Your task to perform on an android device: turn off picture-in-picture Image 0: 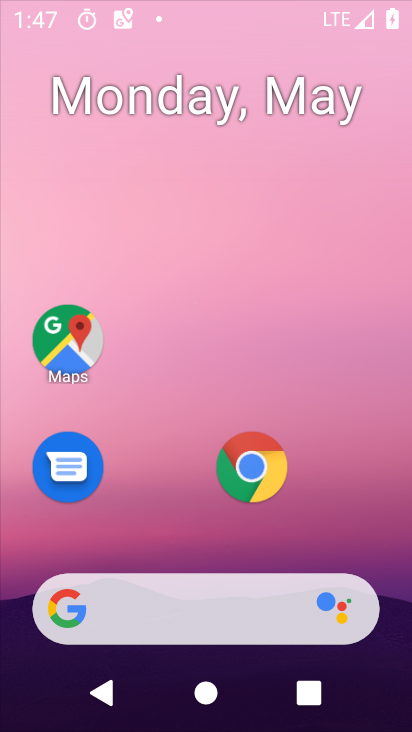
Step 0: click (252, 206)
Your task to perform on an android device: turn off picture-in-picture Image 1: 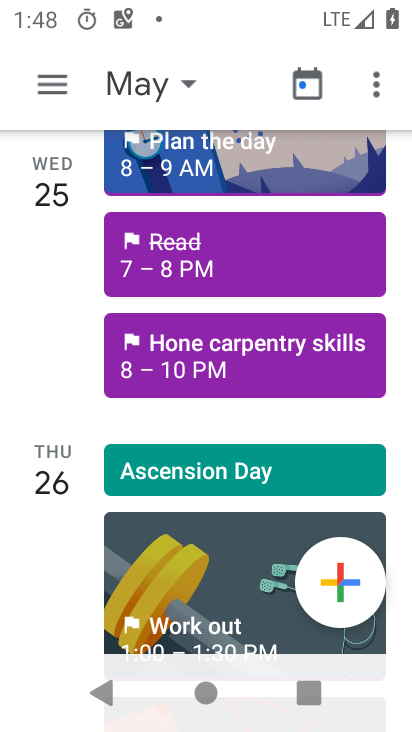
Step 1: drag from (274, 571) to (273, 231)
Your task to perform on an android device: turn off picture-in-picture Image 2: 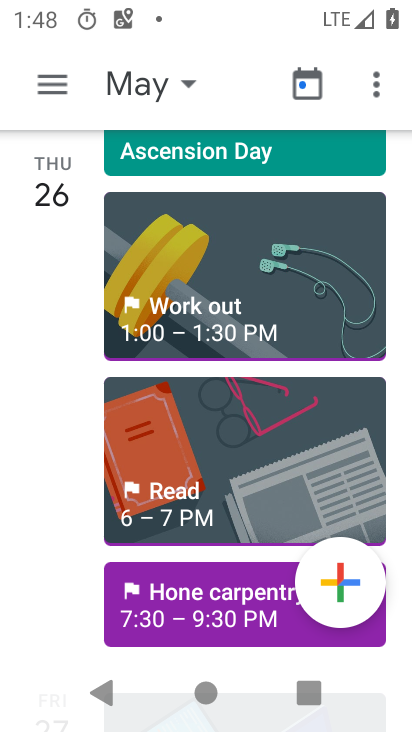
Step 2: drag from (227, 606) to (233, 277)
Your task to perform on an android device: turn off picture-in-picture Image 3: 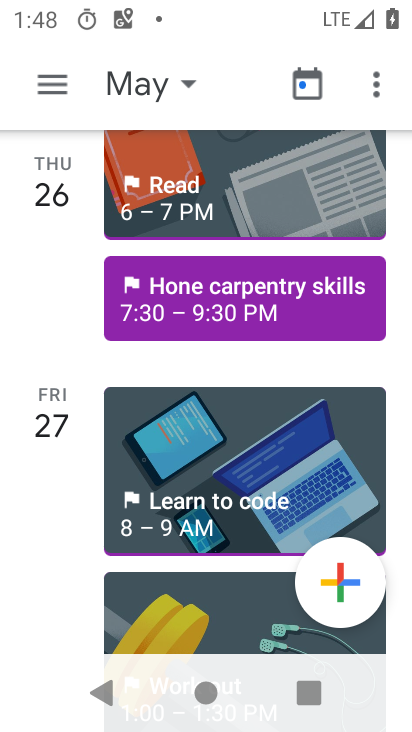
Step 3: drag from (213, 590) to (233, 193)
Your task to perform on an android device: turn off picture-in-picture Image 4: 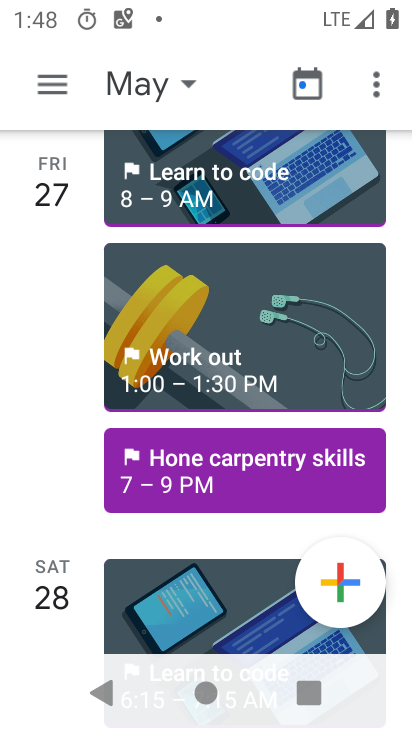
Step 4: drag from (222, 538) to (219, 239)
Your task to perform on an android device: turn off picture-in-picture Image 5: 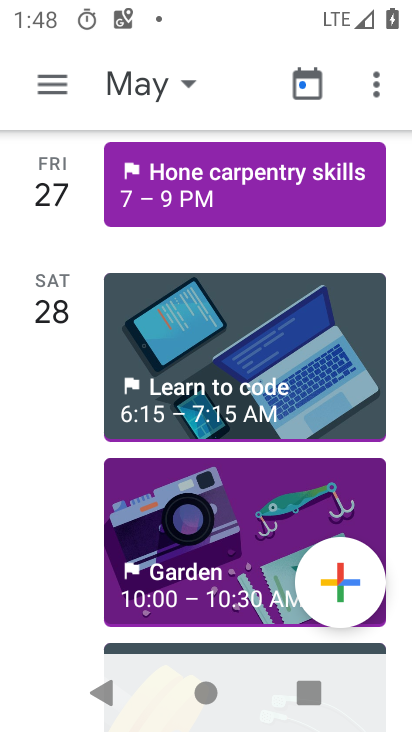
Step 5: drag from (246, 578) to (237, 332)
Your task to perform on an android device: turn off picture-in-picture Image 6: 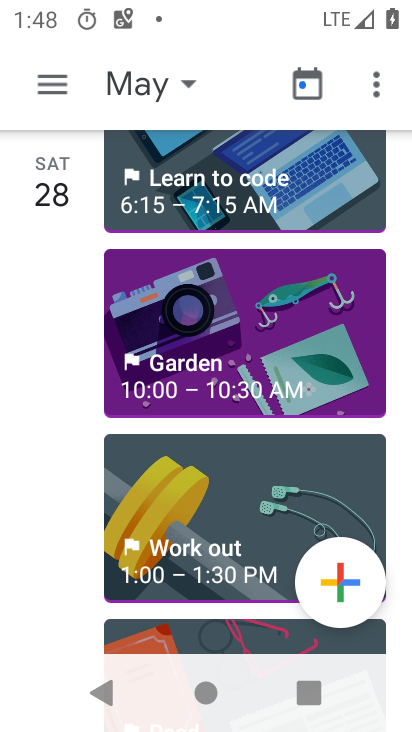
Step 6: drag from (258, 483) to (268, 307)
Your task to perform on an android device: turn off picture-in-picture Image 7: 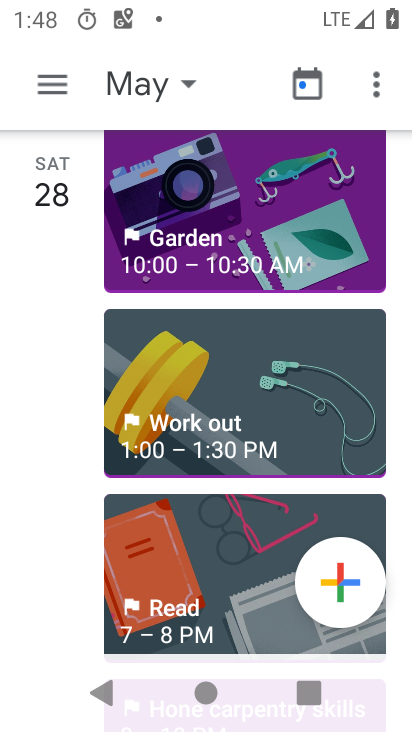
Step 7: drag from (273, 566) to (274, 273)
Your task to perform on an android device: turn off picture-in-picture Image 8: 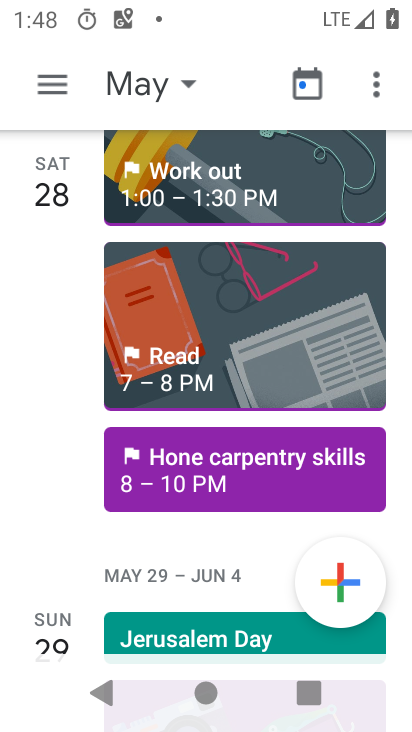
Step 8: click (43, 83)
Your task to perform on an android device: turn off picture-in-picture Image 9: 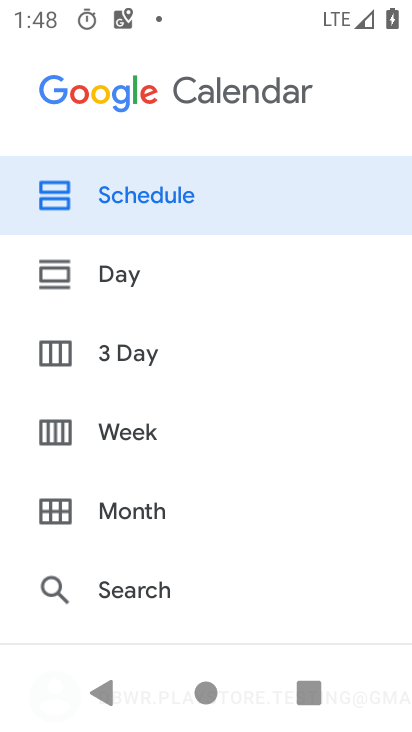
Step 9: drag from (204, 485) to (293, 6)
Your task to perform on an android device: turn off picture-in-picture Image 10: 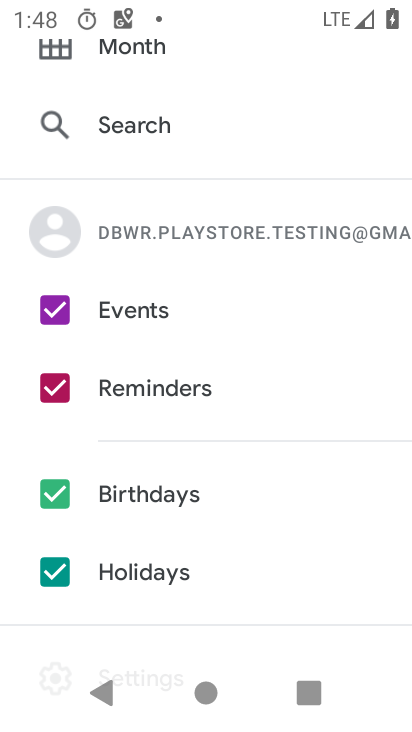
Step 10: drag from (199, 529) to (293, 124)
Your task to perform on an android device: turn off picture-in-picture Image 11: 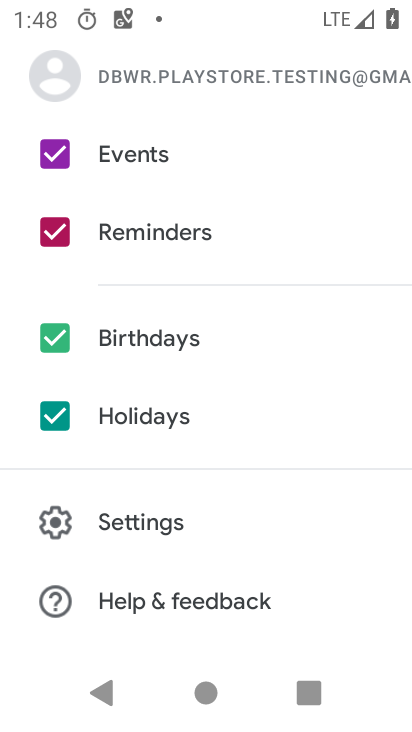
Step 11: press home button
Your task to perform on an android device: turn off picture-in-picture Image 12: 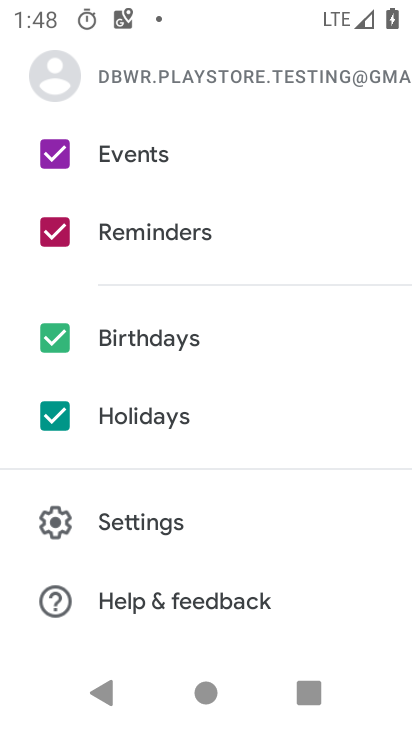
Step 12: drag from (239, 607) to (289, 54)
Your task to perform on an android device: turn off picture-in-picture Image 13: 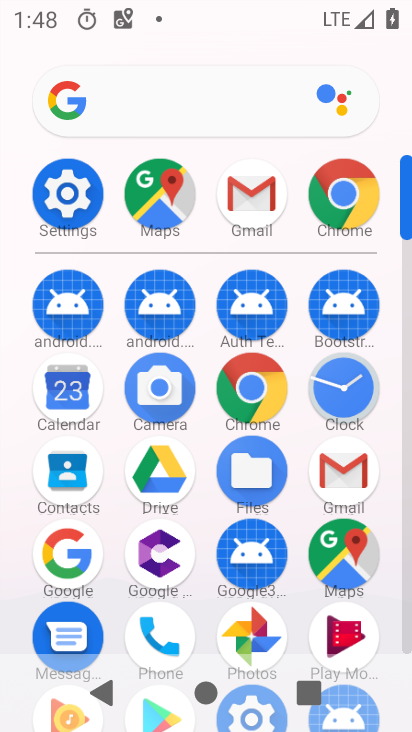
Step 13: click (68, 171)
Your task to perform on an android device: turn off picture-in-picture Image 14: 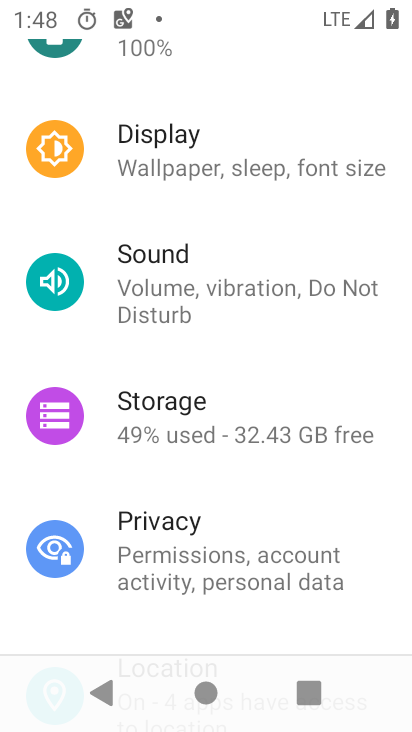
Step 14: drag from (244, 569) to (277, 121)
Your task to perform on an android device: turn off picture-in-picture Image 15: 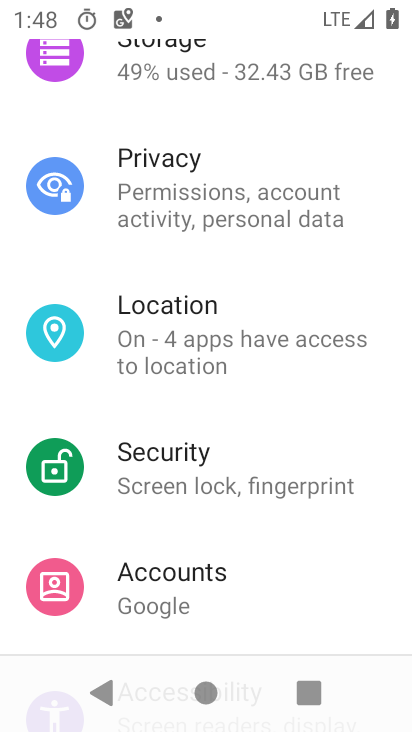
Step 15: drag from (271, 118) to (315, 731)
Your task to perform on an android device: turn off picture-in-picture Image 16: 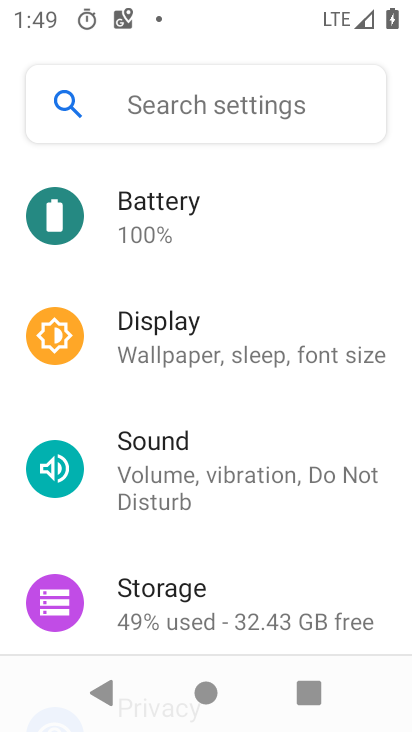
Step 16: drag from (245, 574) to (305, 283)
Your task to perform on an android device: turn off picture-in-picture Image 17: 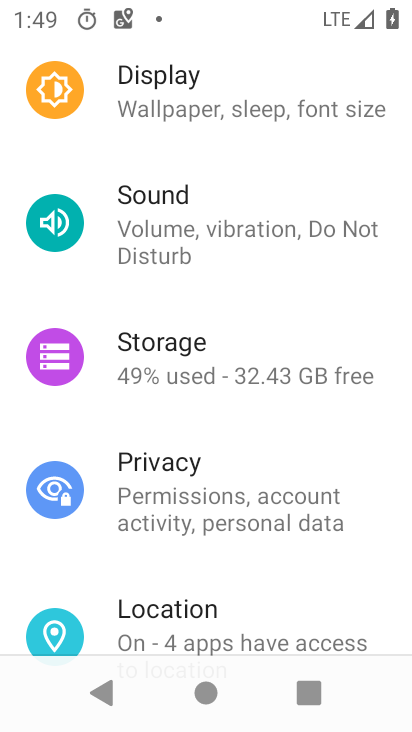
Step 17: drag from (236, 168) to (344, 682)
Your task to perform on an android device: turn off picture-in-picture Image 18: 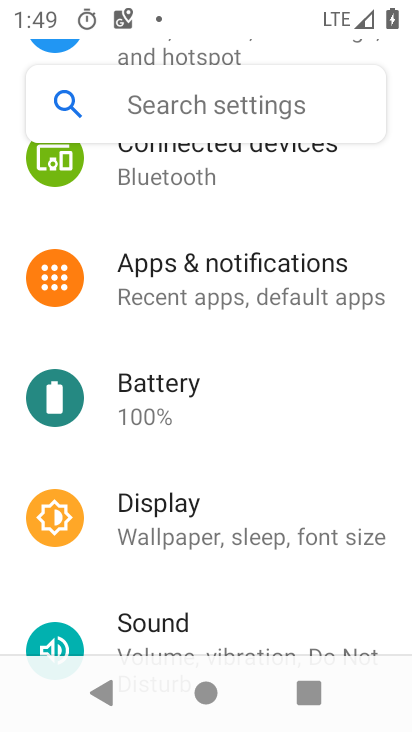
Step 18: click (237, 291)
Your task to perform on an android device: turn off picture-in-picture Image 19: 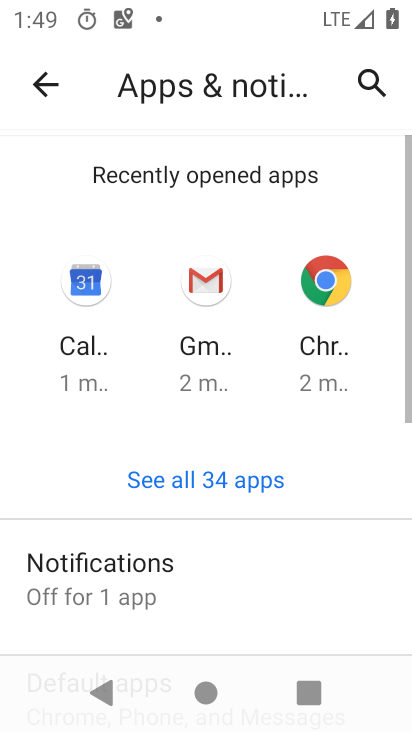
Step 19: drag from (206, 515) to (328, 176)
Your task to perform on an android device: turn off picture-in-picture Image 20: 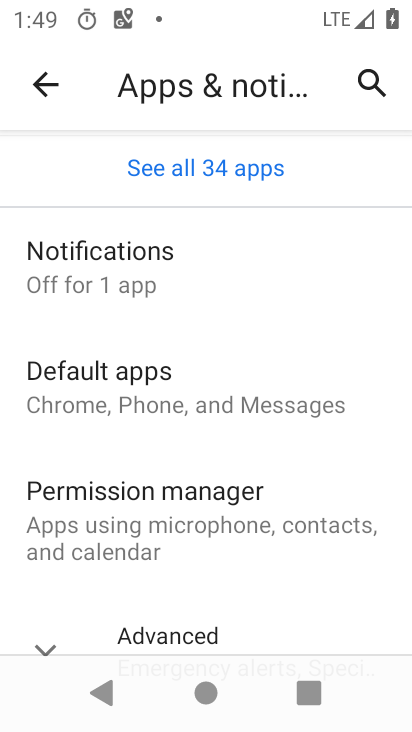
Step 20: click (183, 226)
Your task to perform on an android device: turn off picture-in-picture Image 21: 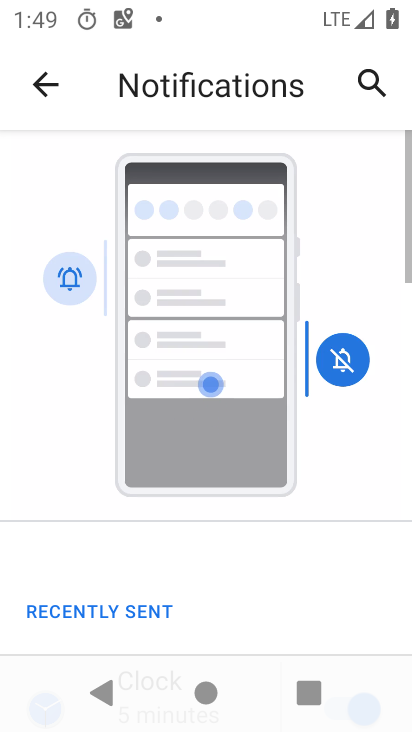
Step 21: drag from (244, 516) to (329, 151)
Your task to perform on an android device: turn off picture-in-picture Image 22: 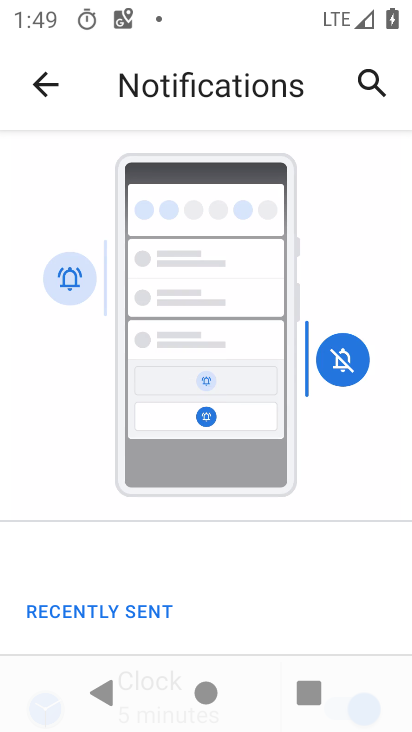
Step 22: drag from (234, 605) to (335, 197)
Your task to perform on an android device: turn off picture-in-picture Image 23: 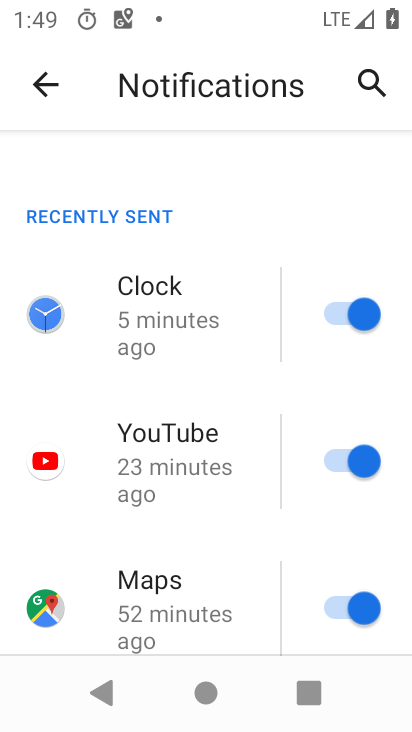
Step 23: drag from (248, 566) to (327, 23)
Your task to perform on an android device: turn off picture-in-picture Image 24: 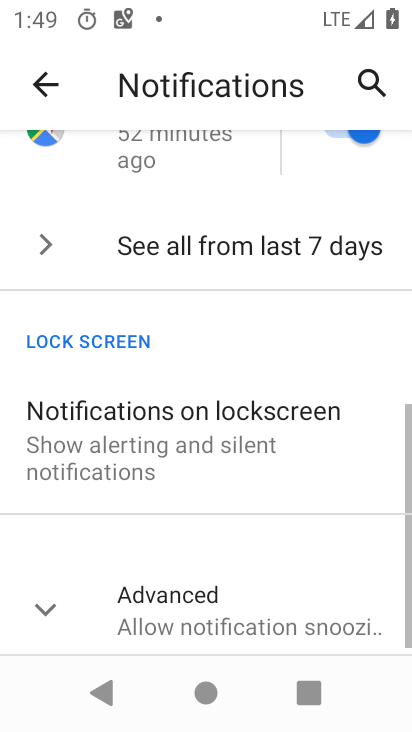
Step 24: click (176, 597)
Your task to perform on an android device: turn off picture-in-picture Image 25: 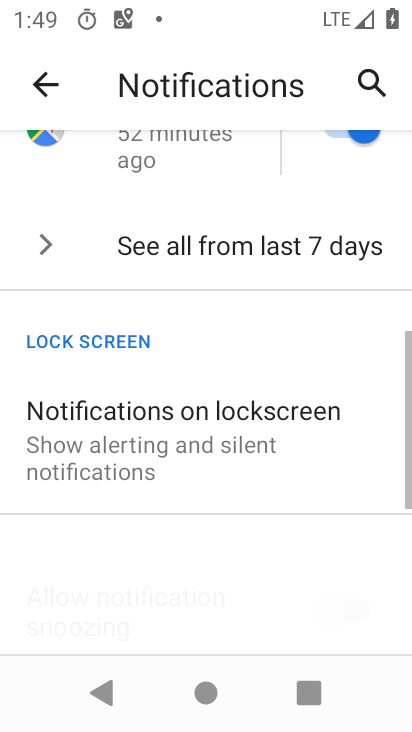
Step 25: drag from (179, 579) to (403, 33)
Your task to perform on an android device: turn off picture-in-picture Image 26: 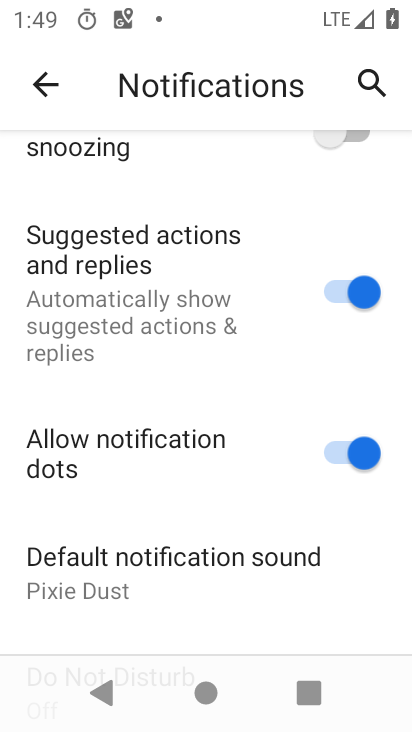
Step 26: drag from (189, 567) to (323, 173)
Your task to perform on an android device: turn off picture-in-picture Image 27: 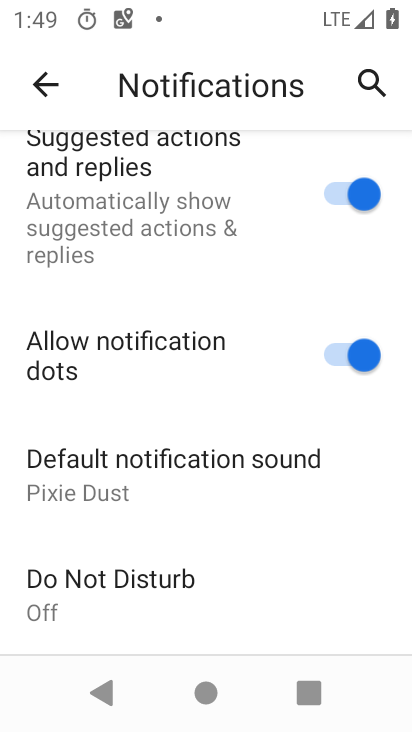
Step 27: click (33, 80)
Your task to perform on an android device: turn off picture-in-picture Image 28: 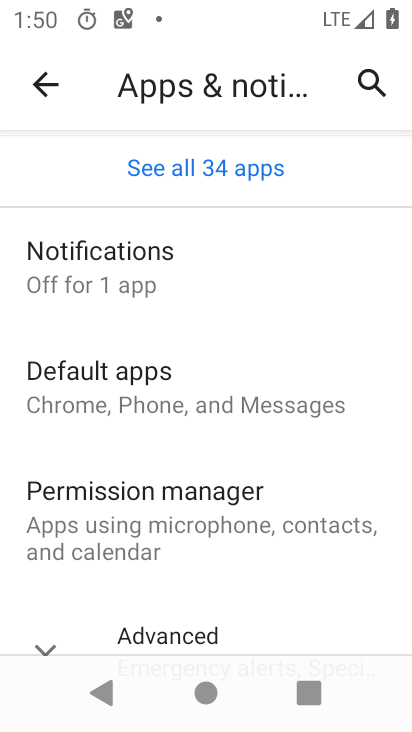
Step 28: drag from (235, 563) to (300, 99)
Your task to perform on an android device: turn off picture-in-picture Image 29: 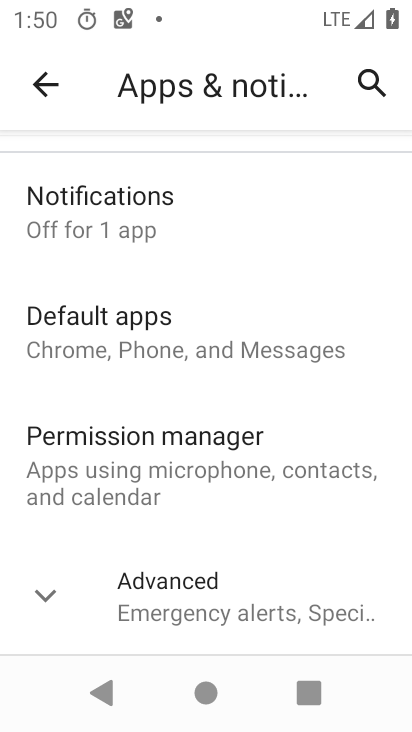
Step 29: click (138, 587)
Your task to perform on an android device: turn off picture-in-picture Image 30: 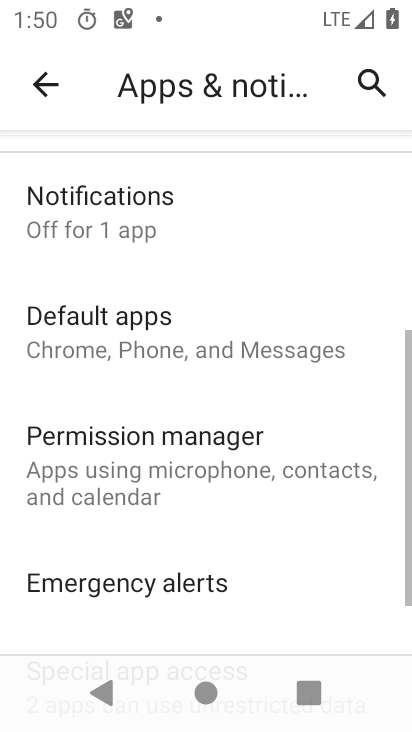
Step 30: drag from (160, 573) to (316, 62)
Your task to perform on an android device: turn off picture-in-picture Image 31: 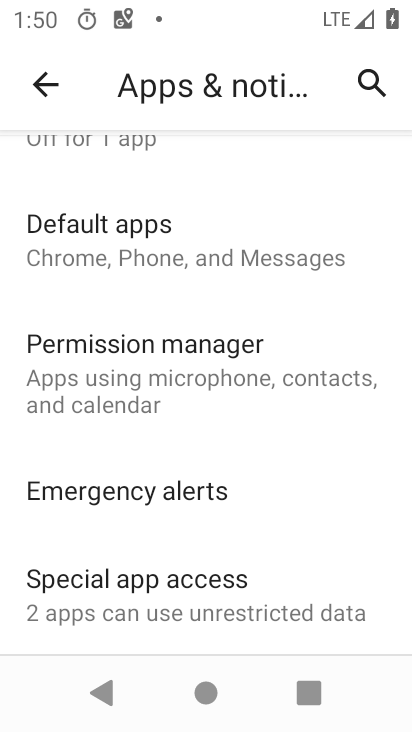
Step 31: click (133, 583)
Your task to perform on an android device: turn off picture-in-picture Image 32: 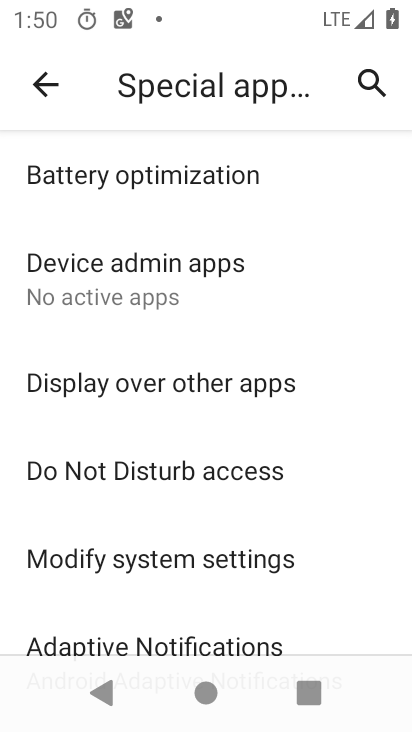
Step 32: drag from (227, 568) to (341, 92)
Your task to perform on an android device: turn off picture-in-picture Image 33: 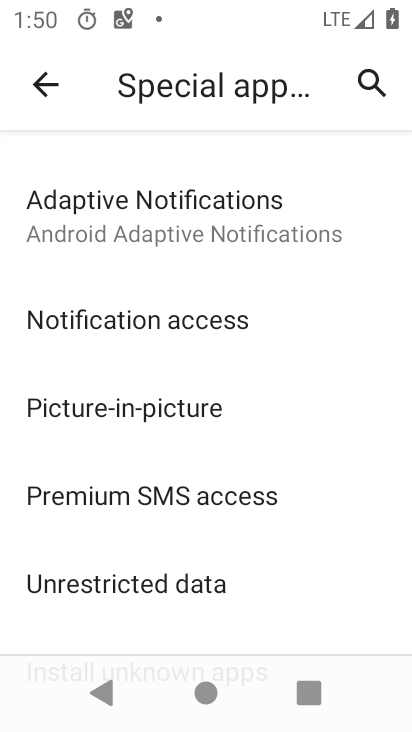
Step 33: click (160, 401)
Your task to perform on an android device: turn off picture-in-picture Image 34: 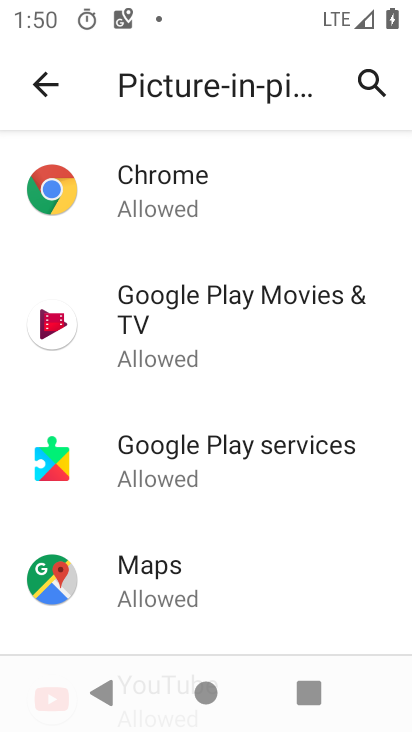
Step 34: click (188, 479)
Your task to perform on an android device: turn off picture-in-picture Image 35: 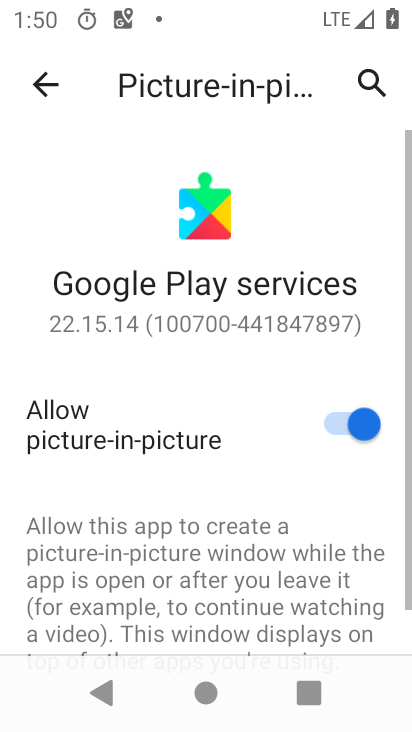
Step 35: click (353, 428)
Your task to perform on an android device: turn off picture-in-picture Image 36: 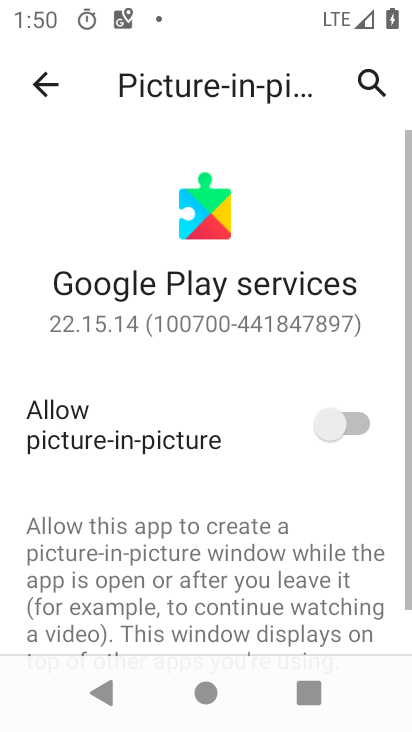
Step 36: task complete